Your task to perform on an android device: Go to privacy settings Image 0: 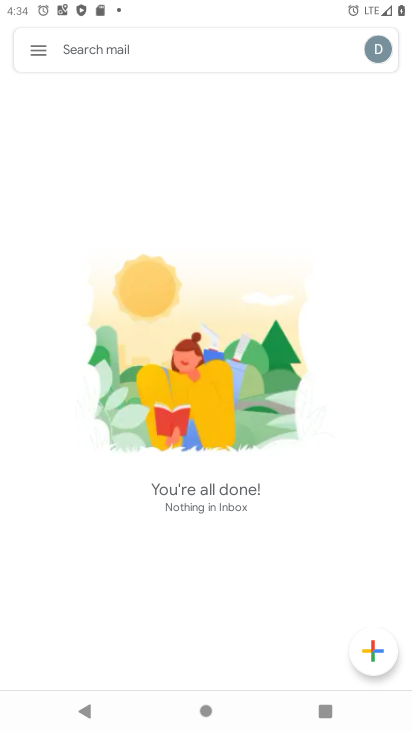
Step 0: press home button
Your task to perform on an android device: Go to privacy settings Image 1: 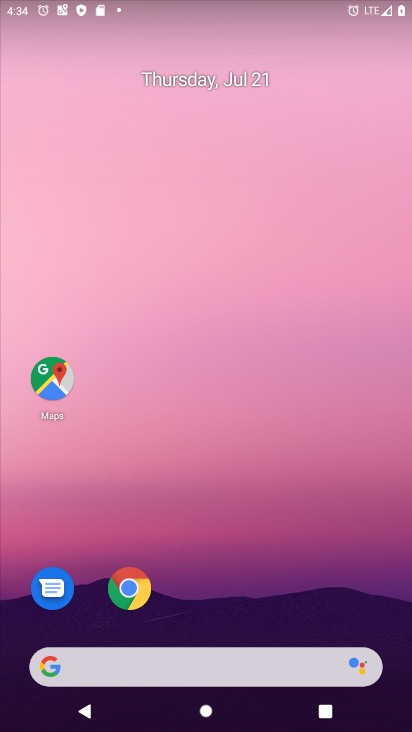
Step 1: drag from (286, 584) to (283, 26)
Your task to perform on an android device: Go to privacy settings Image 2: 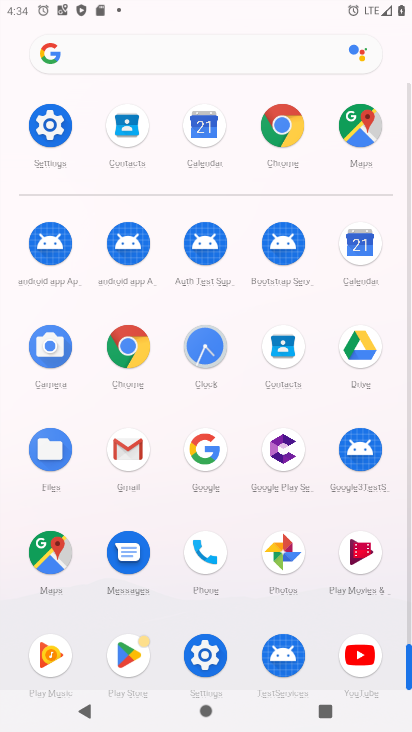
Step 2: click (199, 655)
Your task to perform on an android device: Go to privacy settings Image 3: 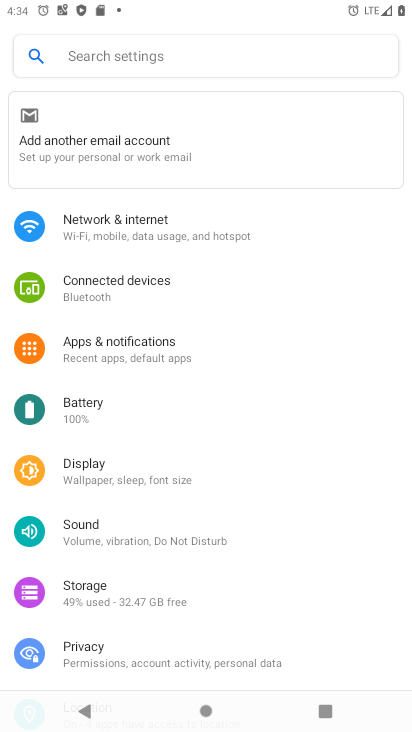
Step 3: drag from (172, 621) to (181, 271)
Your task to perform on an android device: Go to privacy settings Image 4: 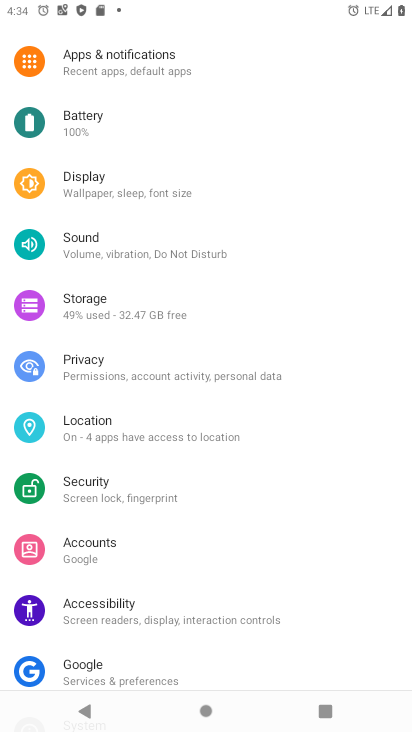
Step 4: click (63, 365)
Your task to perform on an android device: Go to privacy settings Image 5: 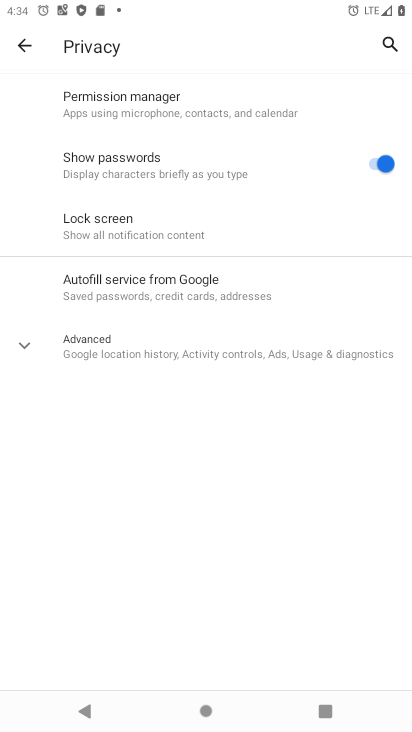
Step 5: task complete